Your task to perform on an android device: check the backup settings in the google photos Image 0: 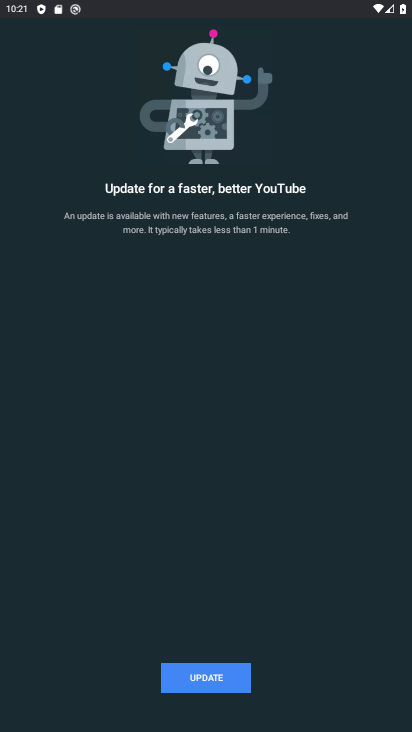
Step 0: press home button
Your task to perform on an android device: check the backup settings in the google photos Image 1: 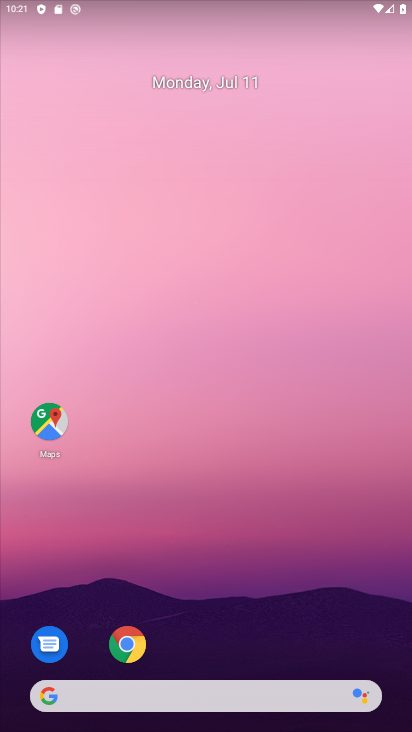
Step 1: drag from (236, 623) to (226, 7)
Your task to perform on an android device: check the backup settings in the google photos Image 2: 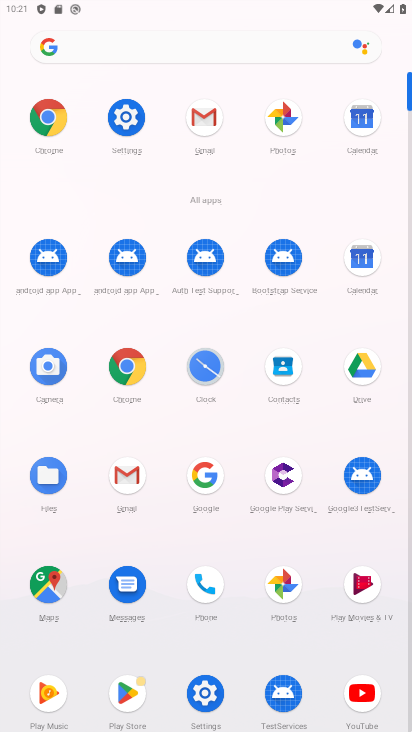
Step 2: click (287, 585)
Your task to perform on an android device: check the backup settings in the google photos Image 3: 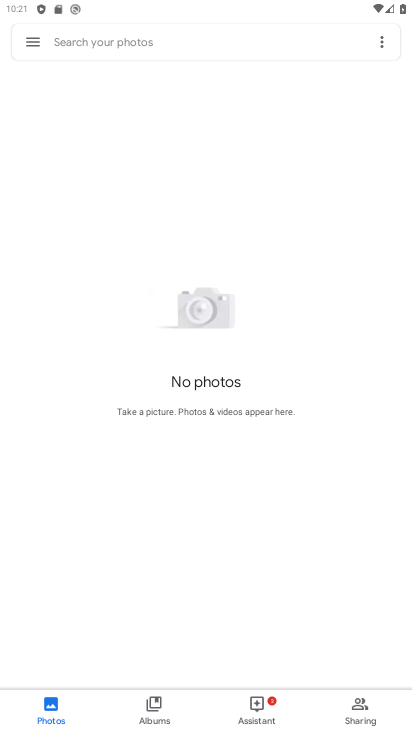
Step 3: click (37, 30)
Your task to perform on an android device: check the backup settings in the google photos Image 4: 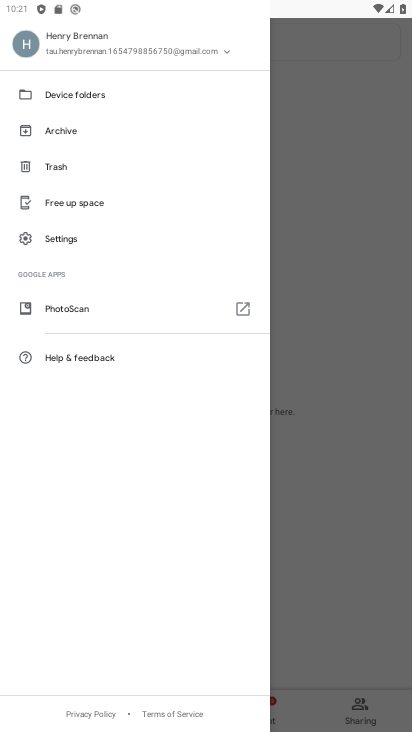
Step 4: click (76, 244)
Your task to perform on an android device: check the backup settings in the google photos Image 5: 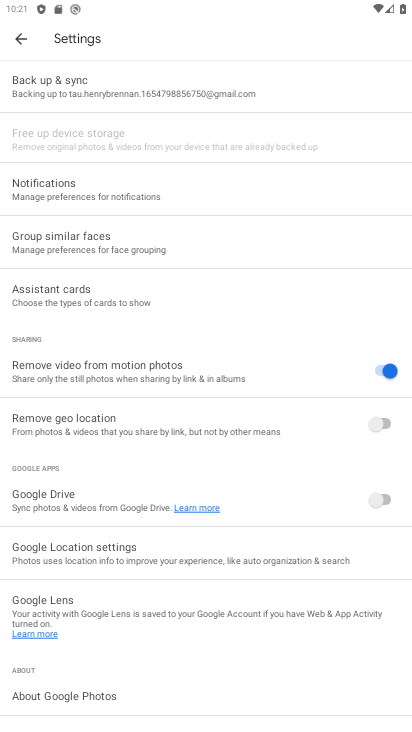
Step 5: click (99, 79)
Your task to perform on an android device: check the backup settings in the google photos Image 6: 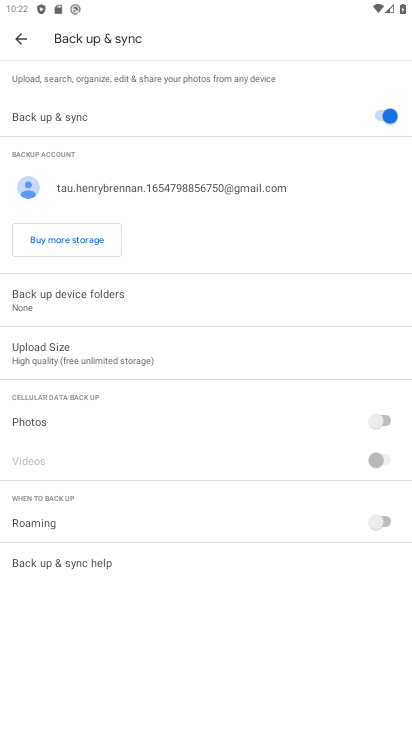
Step 6: task complete